Your task to perform on an android device: turn off data saver in the chrome app Image 0: 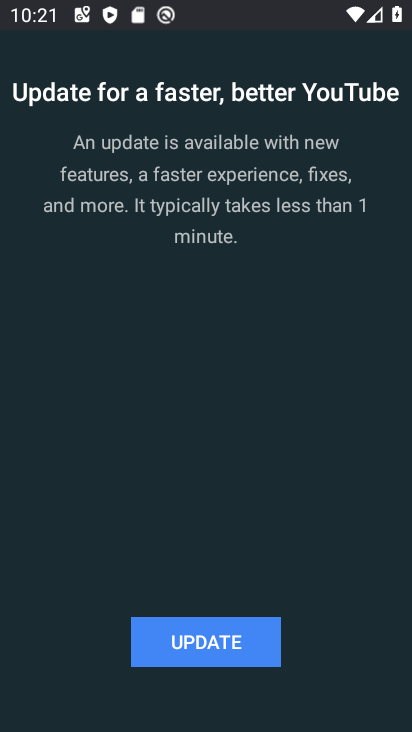
Step 0: press home button
Your task to perform on an android device: turn off data saver in the chrome app Image 1: 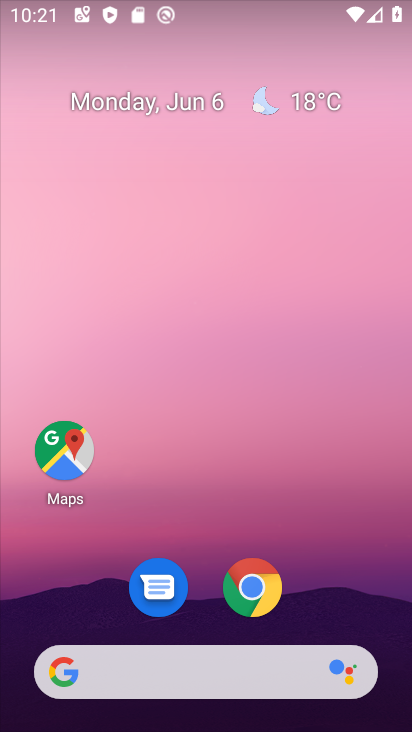
Step 1: click (251, 588)
Your task to perform on an android device: turn off data saver in the chrome app Image 2: 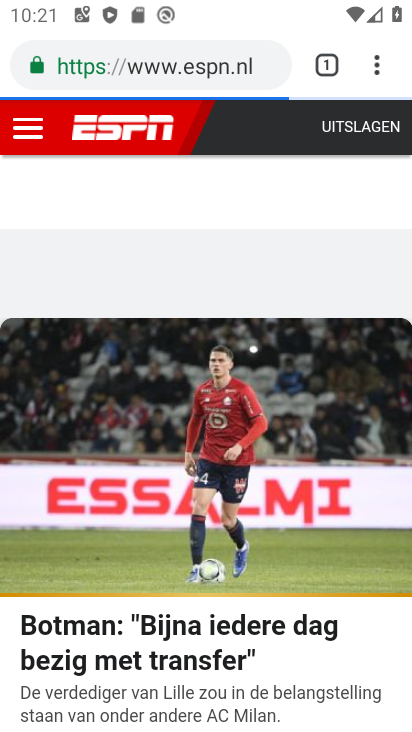
Step 2: click (379, 60)
Your task to perform on an android device: turn off data saver in the chrome app Image 3: 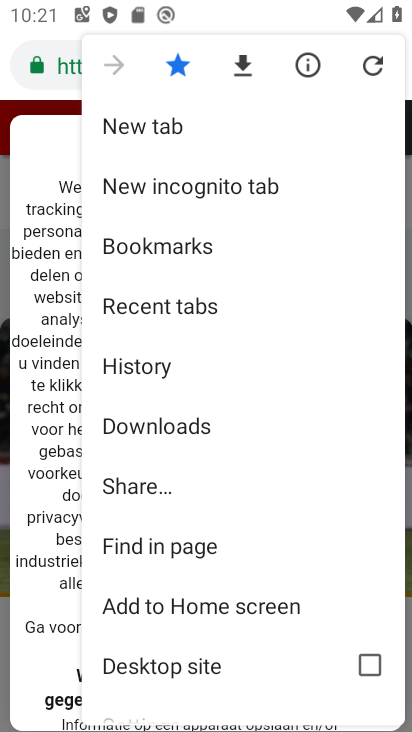
Step 3: drag from (227, 669) to (293, 140)
Your task to perform on an android device: turn off data saver in the chrome app Image 4: 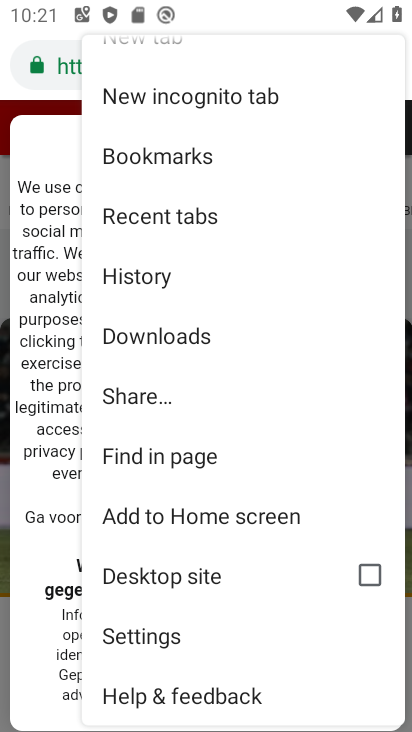
Step 4: click (155, 646)
Your task to perform on an android device: turn off data saver in the chrome app Image 5: 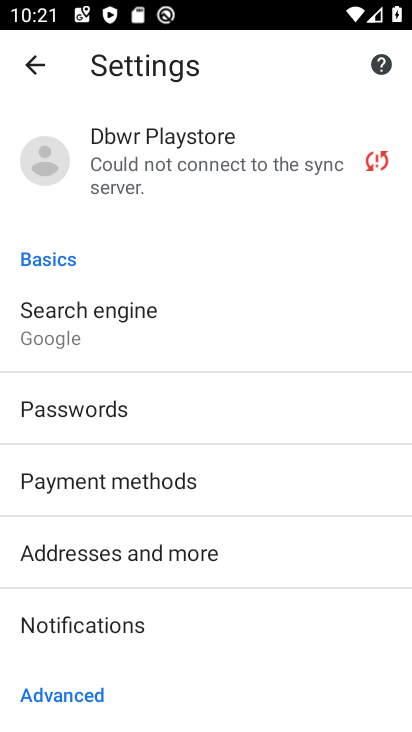
Step 5: drag from (181, 615) to (208, 188)
Your task to perform on an android device: turn off data saver in the chrome app Image 6: 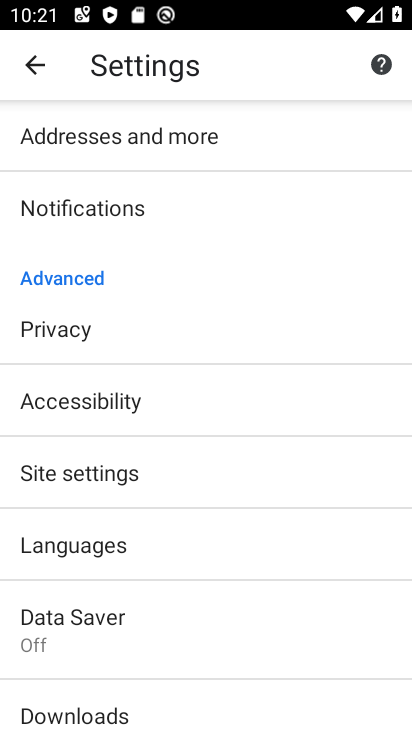
Step 6: click (189, 617)
Your task to perform on an android device: turn off data saver in the chrome app Image 7: 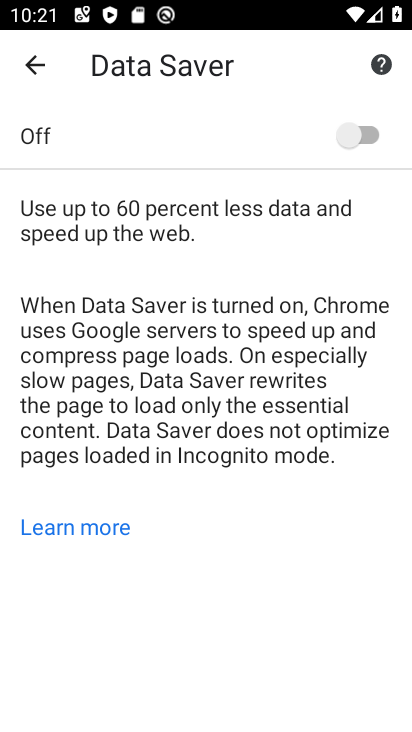
Step 7: task complete